Your task to perform on an android device: check data usage Image 0: 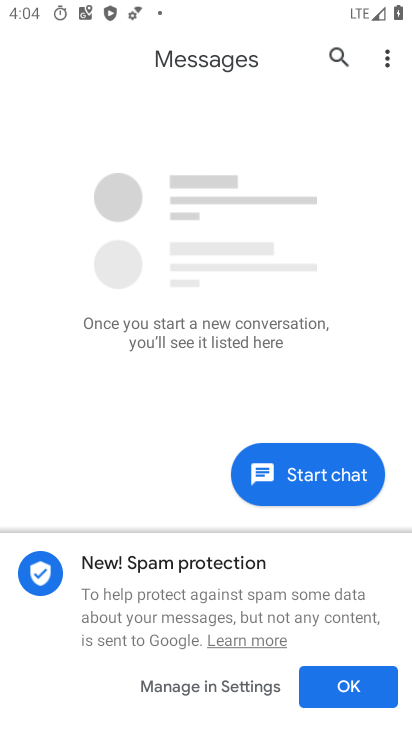
Step 0: press home button
Your task to perform on an android device: check data usage Image 1: 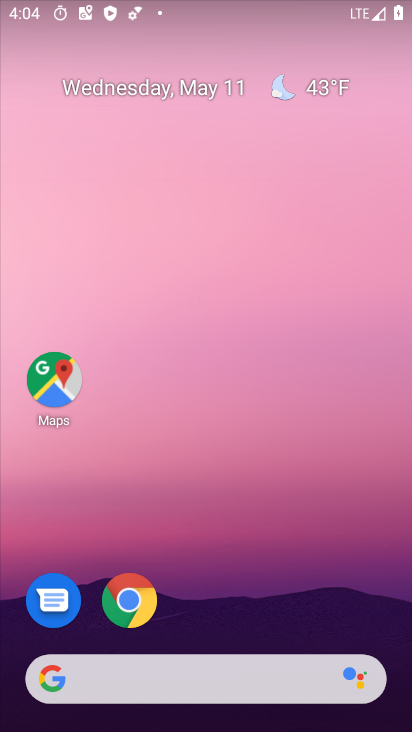
Step 1: drag from (270, 637) to (266, 1)
Your task to perform on an android device: check data usage Image 2: 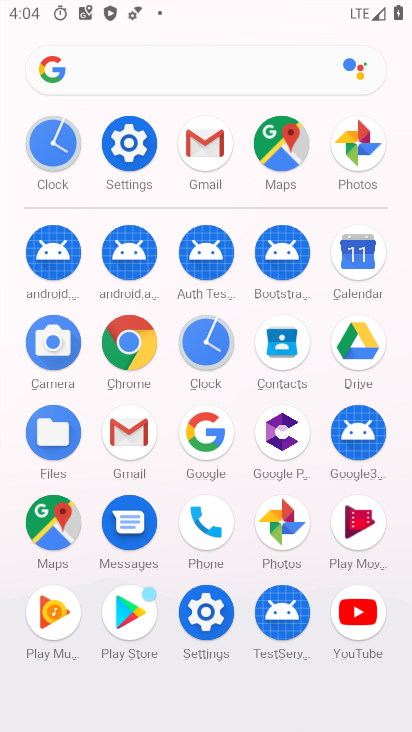
Step 2: click (128, 141)
Your task to perform on an android device: check data usage Image 3: 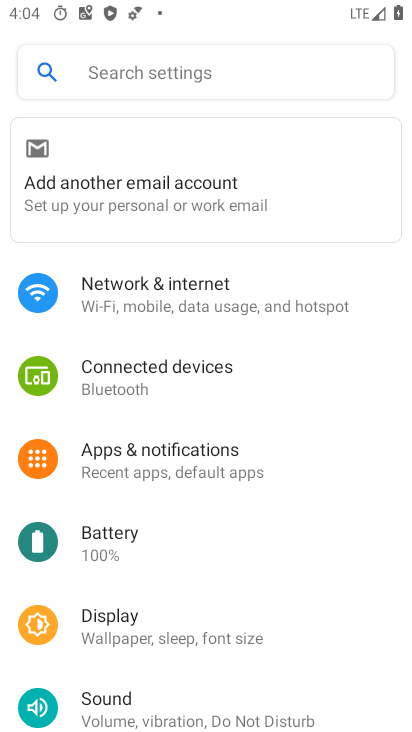
Step 3: click (157, 313)
Your task to perform on an android device: check data usage Image 4: 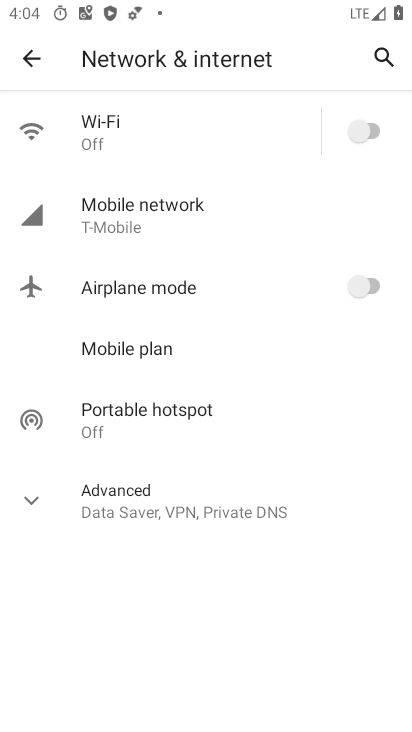
Step 4: click (157, 221)
Your task to perform on an android device: check data usage Image 5: 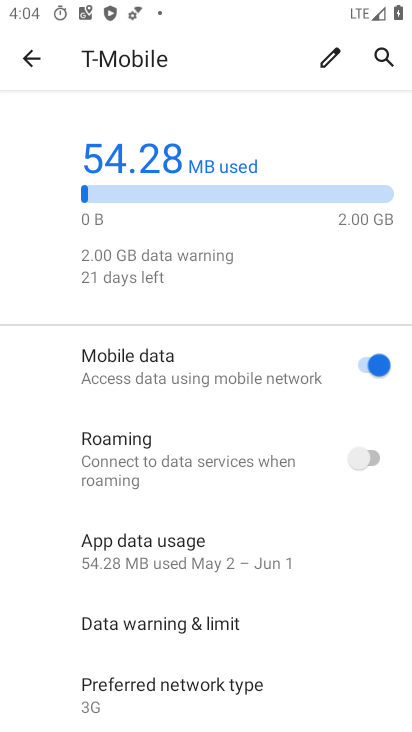
Step 5: click (159, 557)
Your task to perform on an android device: check data usage Image 6: 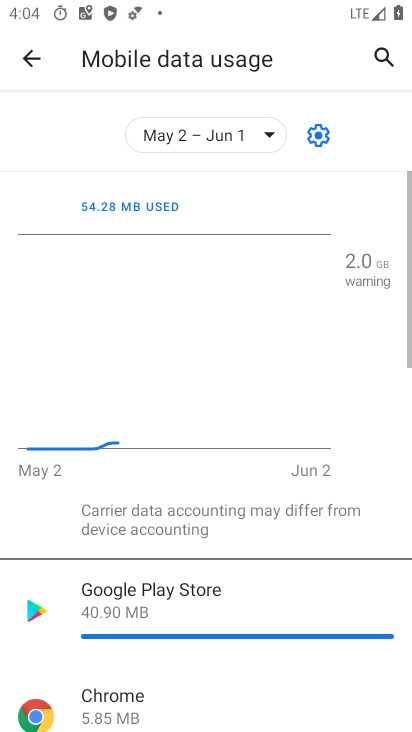
Step 6: task complete